Your task to perform on an android device: Go to CNN.com Image 0: 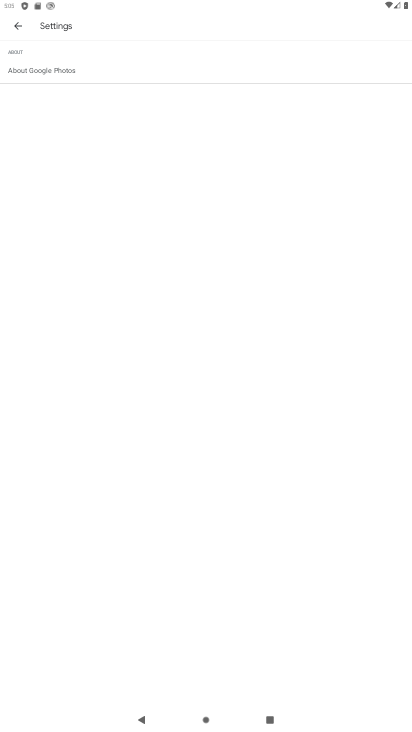
Step 0: press home button
Your task to perform on an android device: Go to CNN.com Image 1: 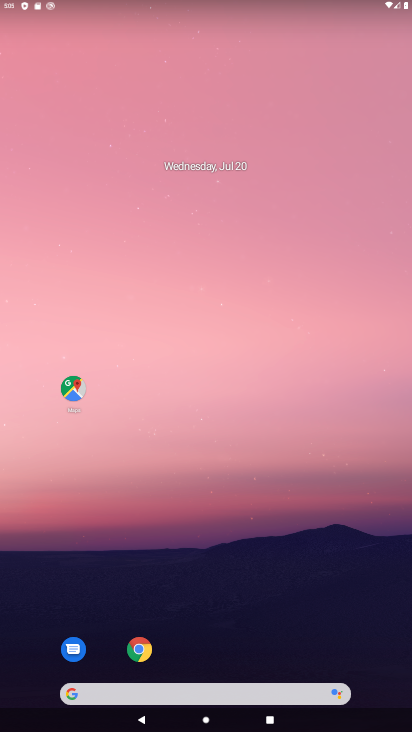
Step 1: drag from (335, 630) to (320, 7)
Your task to perform on an android device: Go to CNN.com Image 2: 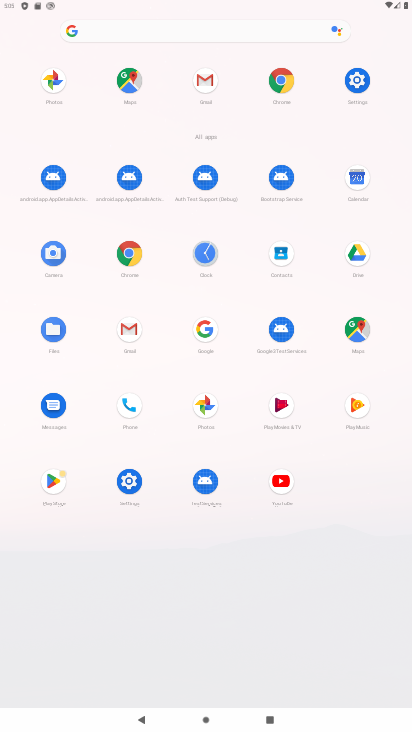
Step 2: click (274, 89)
Your task to perform on an android device: Go to CNN.com Image 3: 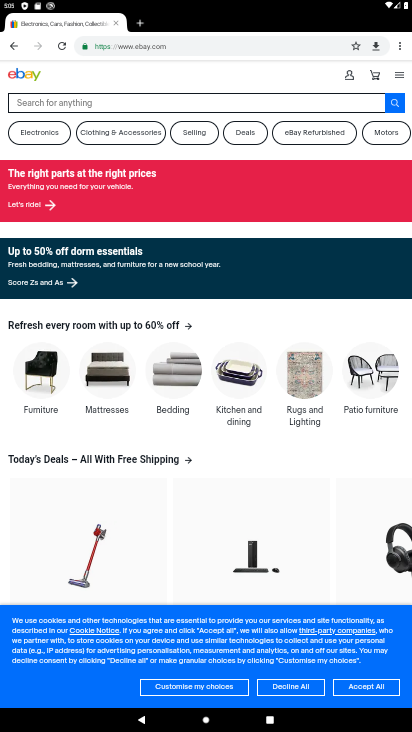
Step 3: click (138, 18)
Your task to perform on an android device: Go to CNN.com Image 4: 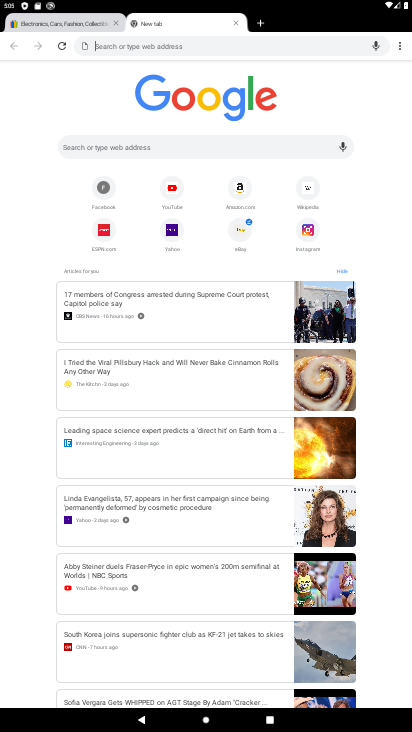
Step 4: click (136, 153)
Your task to perform on an android device: Go to CNN.com Image 5: 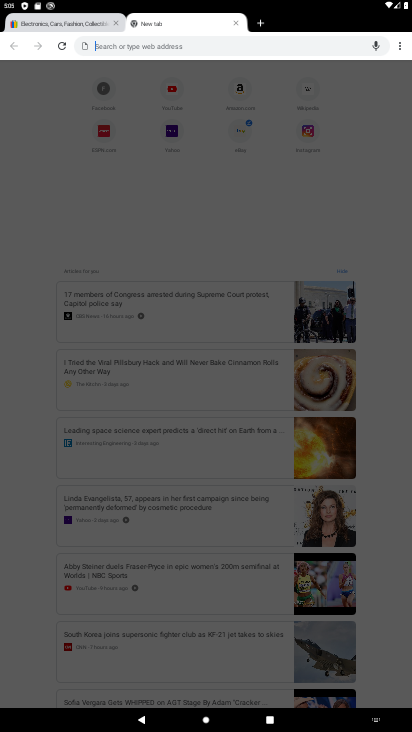
Step 5: type "CNN.com"
Your task to perform on an android device: Go to CNN.com Image 6: 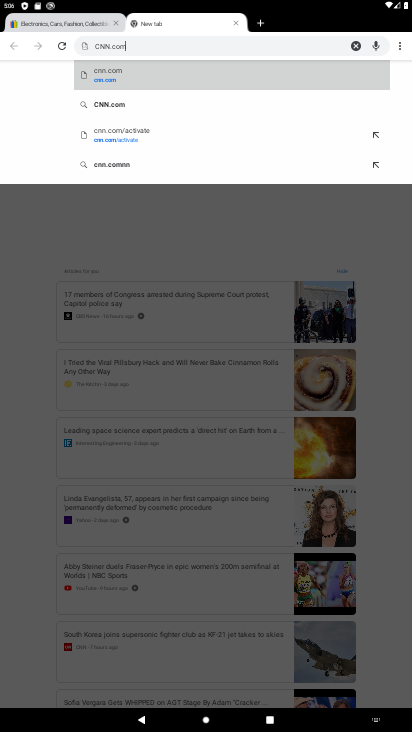
Step 6: press enter
Your task to perform on an android device: Go to CNN.com Image 7: 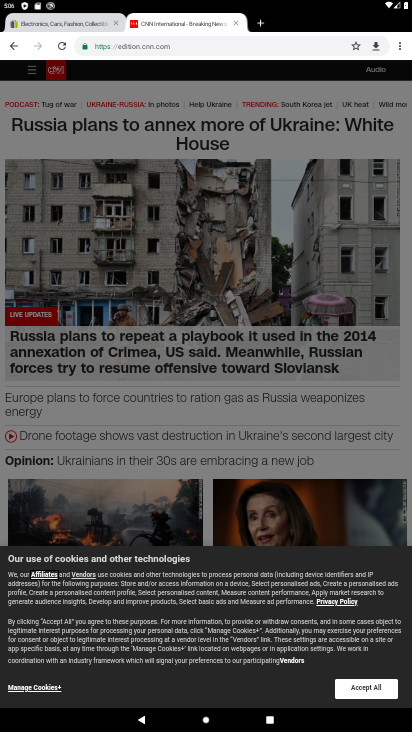
Step 7: task complete